Your task to perform on an android device: turn notification dots on Image 0: 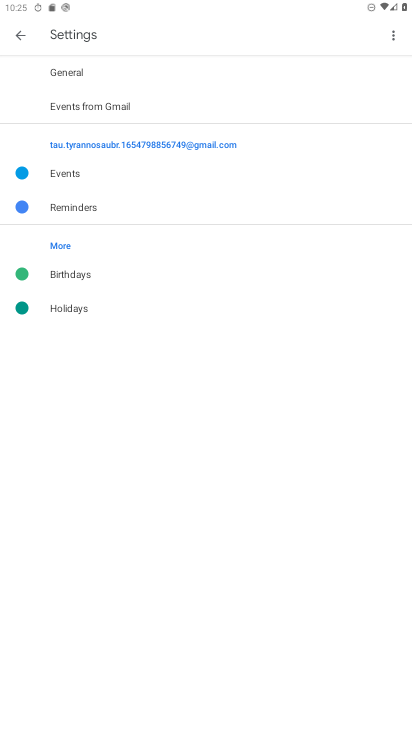
Step 0: press home button
Your task to perform on an android device: turn notification dots on Image 1: 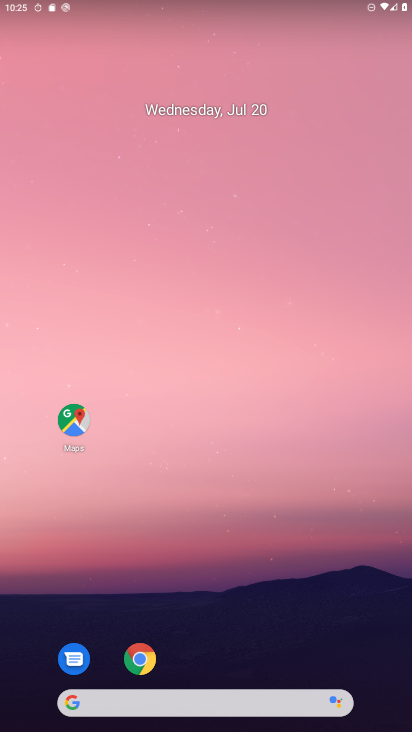
Step 1: drag from (279, 578) to (202, 0)
Your task to perform on an android device: turn notification dots on Image 2: 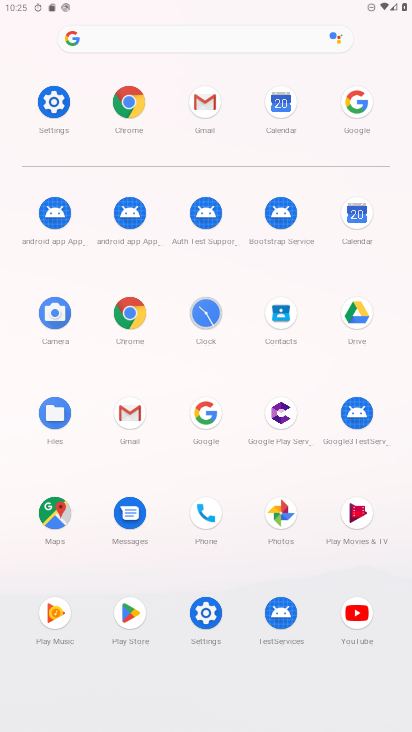
Step 2: click (42, 97)
Your task to perform on an android device: turn notification dots on Image 3: 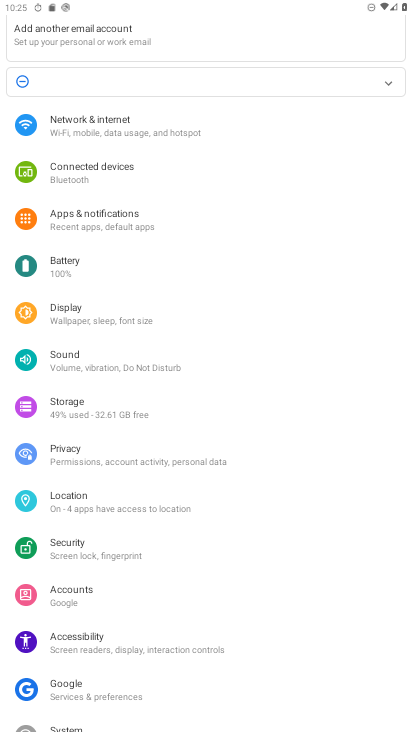
Step 3: click (116, 227)
Your task to perform on an android device: turn notification dots on Image 4: 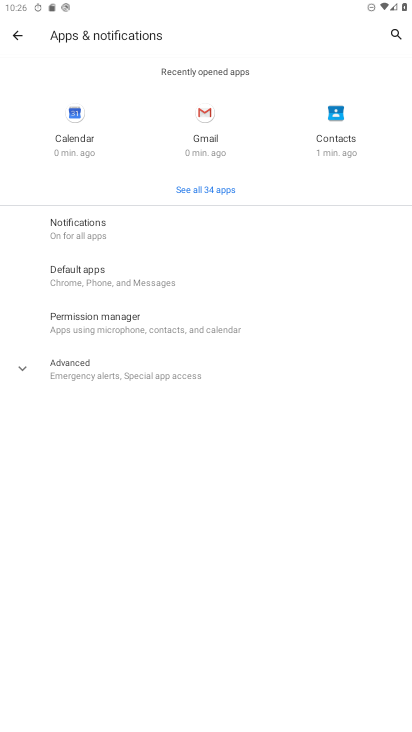
Step 4: click (112, 226)
Your task to perform on an android device: turn notification dots on Image 5: 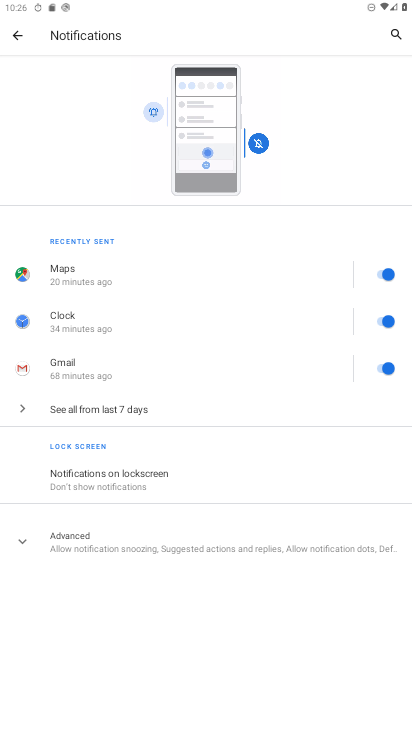
Step 5: click (75, 539)
Your task to perform on an android device: turn notification dots on Image 6: 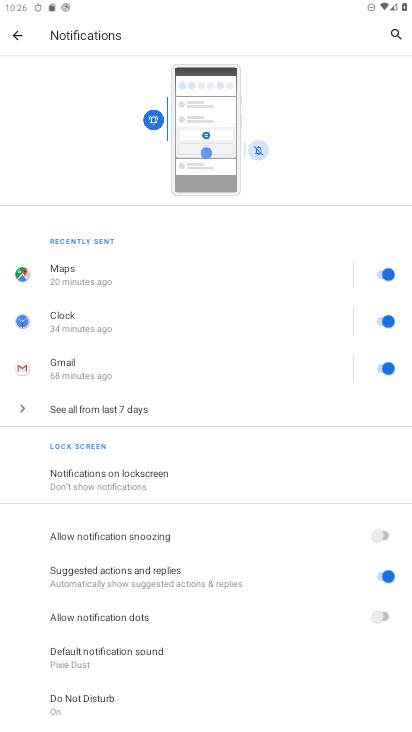
Step 6: click (376, 611)
Your task to perform on an android device: turn notification dots on Image 7: 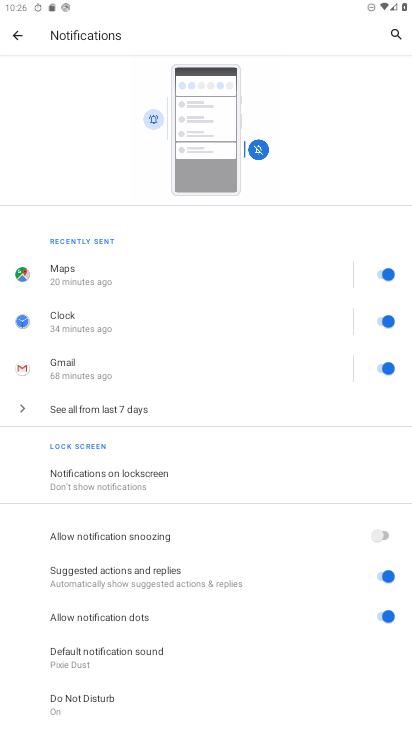
Step 7: task complete